Your task to perform on an android device: Search for Mexican restaurants on Maps Image 0: 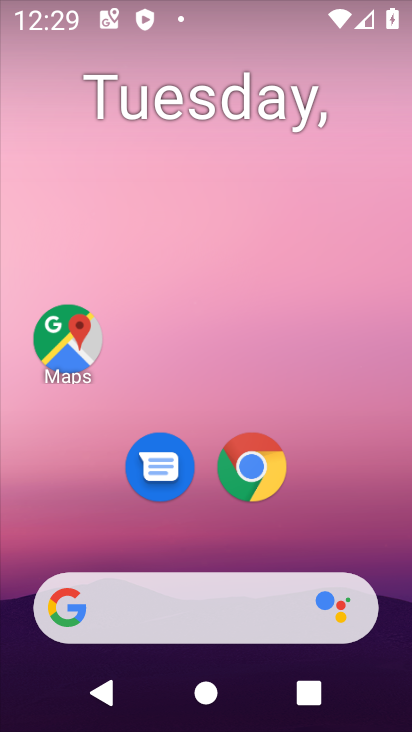
Step 0: drag from (349, 470) to (292, 9)
Your task to perform on an android device: Search for Mexican restaurants on Maps Image 1: 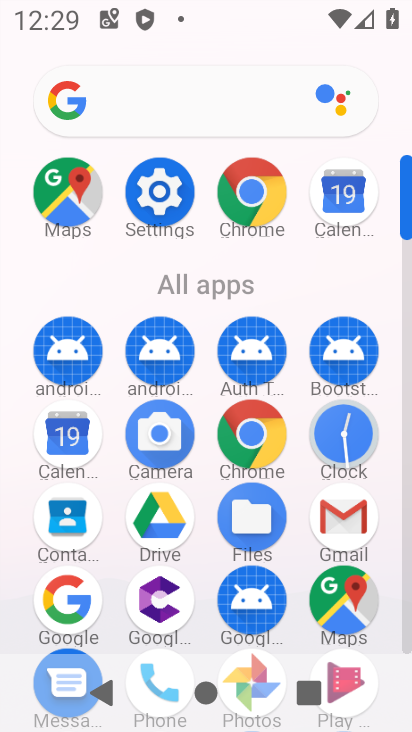
Step 1: drag from (7, 528) to (28, 289)
Your task to perform on an android device: Search for Mexican restaurants on Maps Image 2: 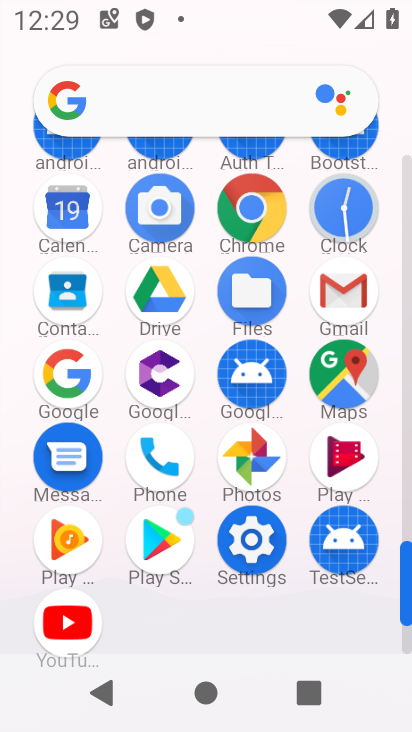
Step 2: click (342, 373)
Your task to perform on an android device: Search for Mexican restaurants on Maps Image 3: 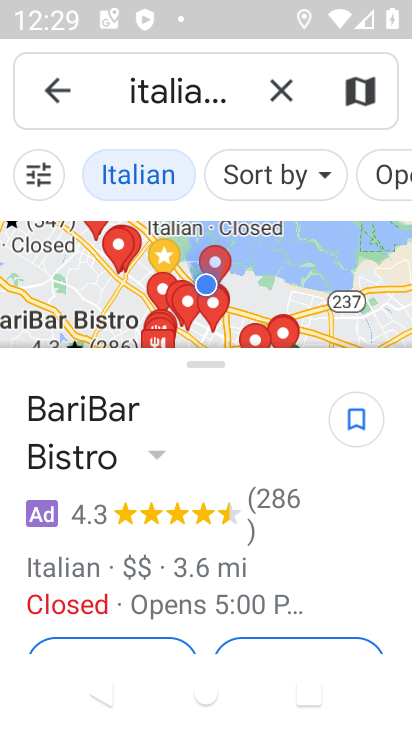
Step 3: click (280, 79)
Your task to perform on an android device: Search for Mexican restaurants on Maps Image 4: 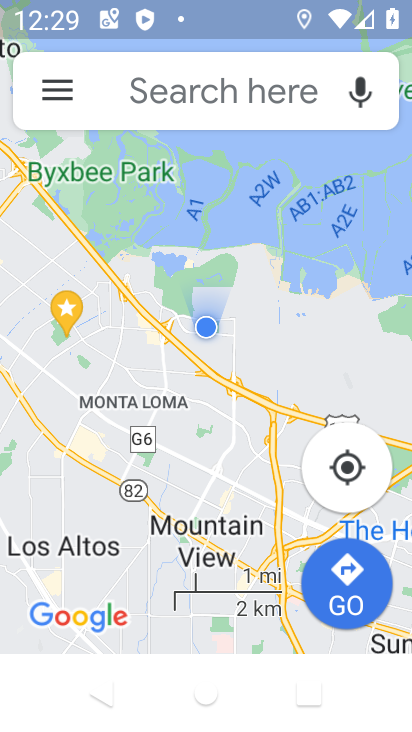
Step 4: click (230, 93)
Your task to perform on an android device: Search for Mexican restaurants on Maps Image 5: 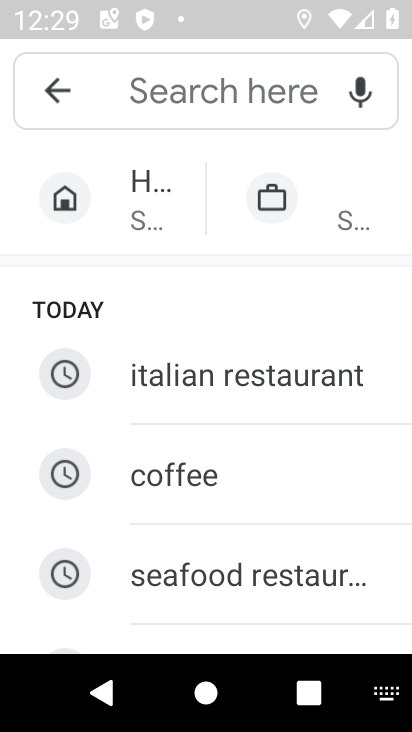
Step 5: drag from (235, 486) to (249, 257)
Your task to perform on an android device: Search for Mexican restaurants on Maps Image 6: 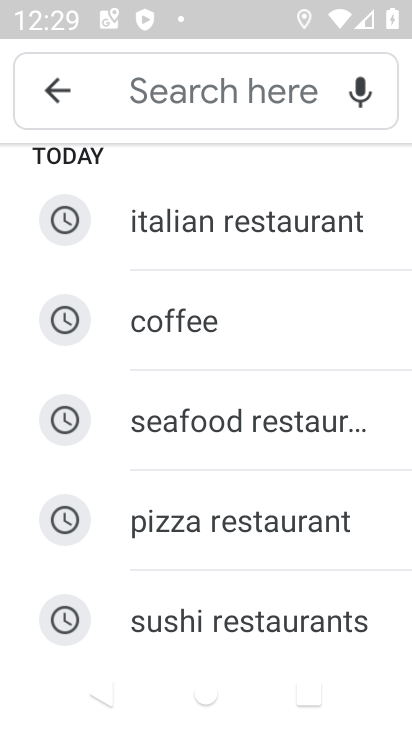
Step 6: drag from (233, 609) to (244, 286)
Your task to perform on an android device: Search for Mexican restaurants on Maps Image 7: 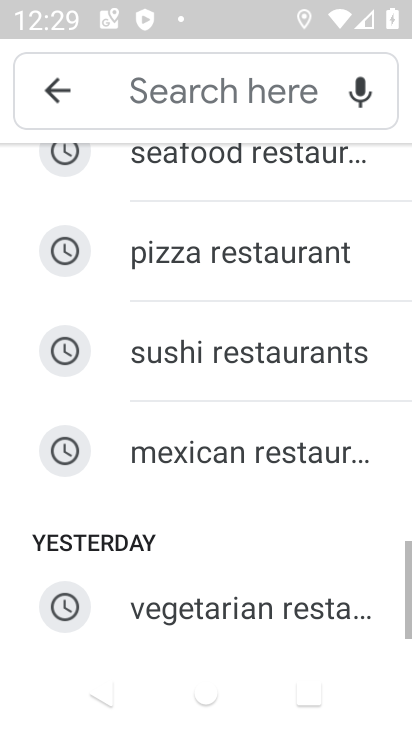
Step 7: click (216, 455)
Your task to perform on an android device: Search for Mexican restaurants on Maps Image 8: 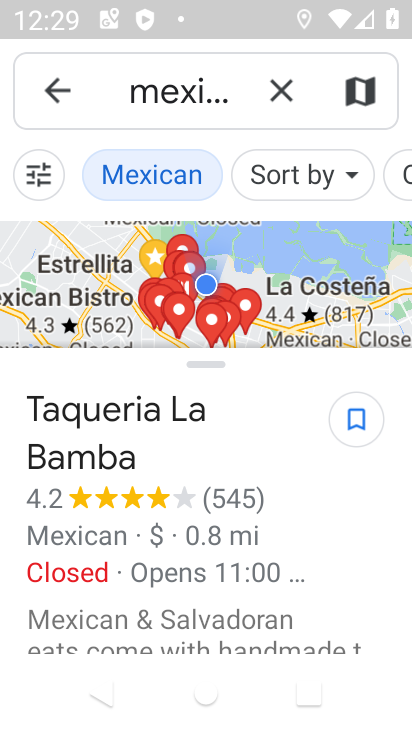
Step 8: task complete